Your task to perform on an android device: turn on airplane mode Image 0: 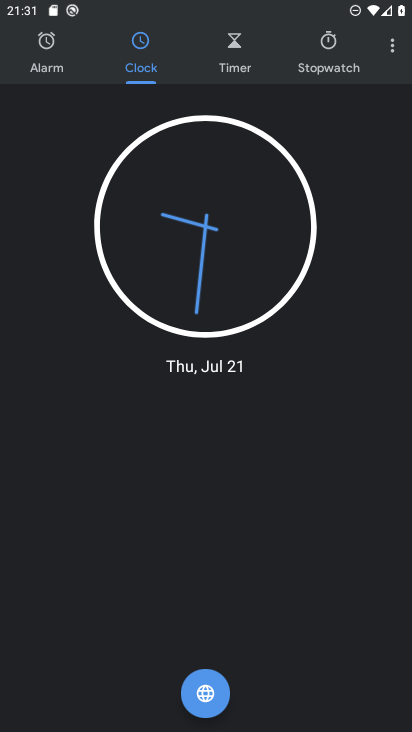
Step 0: press home button
Your task to perform on an android device: turn on airplane mode Image 1: 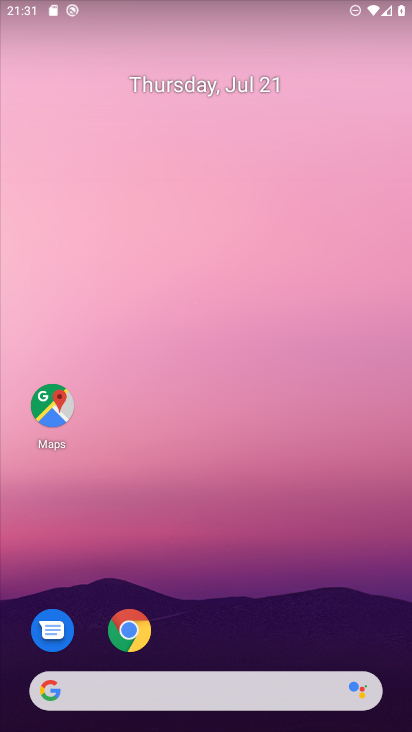
Step 1: drag from (295, 617) to (284, 40)
Your task to perform on an android device: turn on airplane mode Image 2: 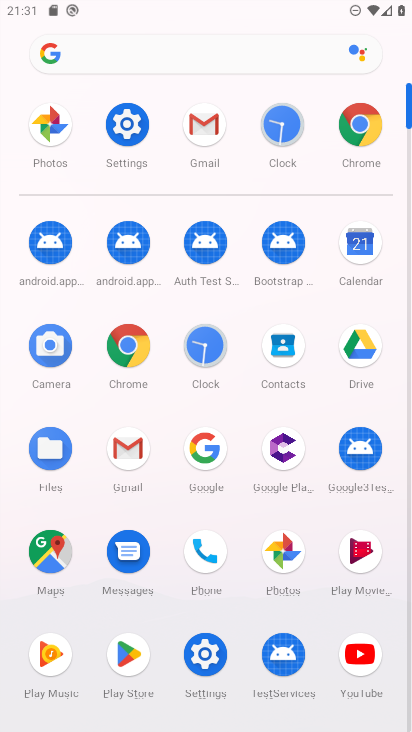
Step 2: click (116, 137)
Your task to perform on an android device: turn on airplane mode Image 3: 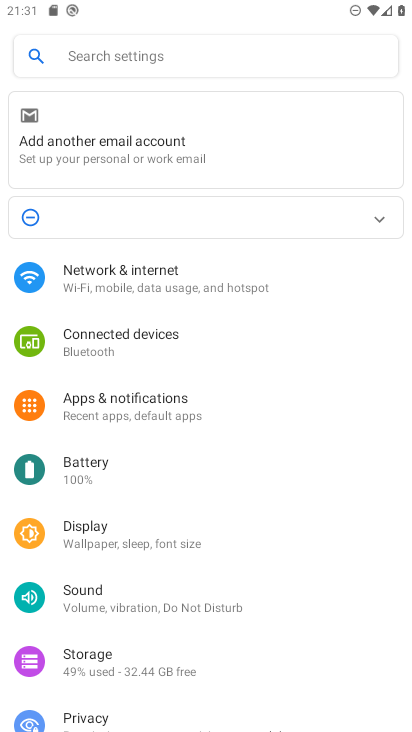
Step 3: click (164, 291)
Your task to perform on an android device: turn on airplane mode Image 4: 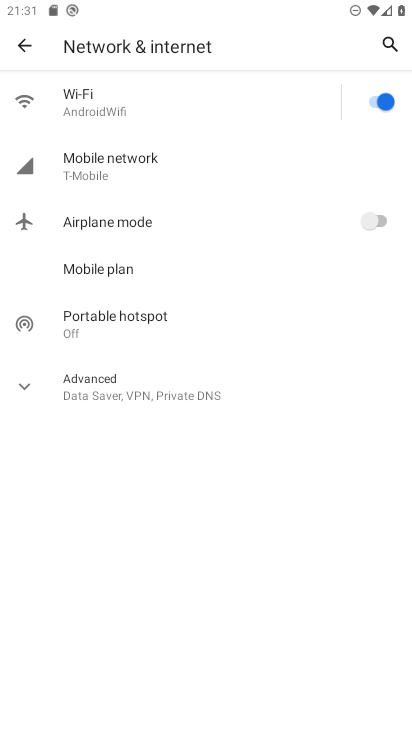
Step 4: click (366, 209)
Your task to perform on an android device: turn on airplane mode Image 5: 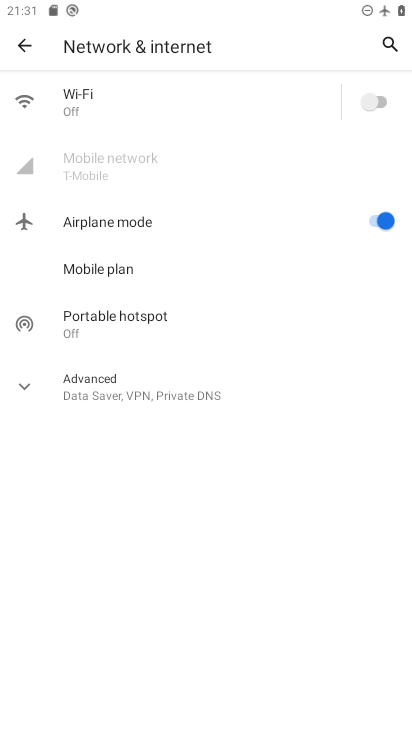
Step 5: task complete